Your task to perform on an android device: change your default location settings in chrome Image 0: 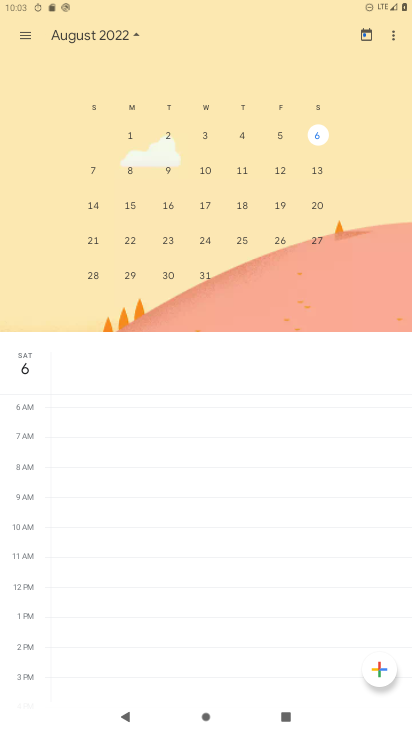
Step 0: press home button
Your task to perform on an android device: change your default location settings in chrome Image 1: 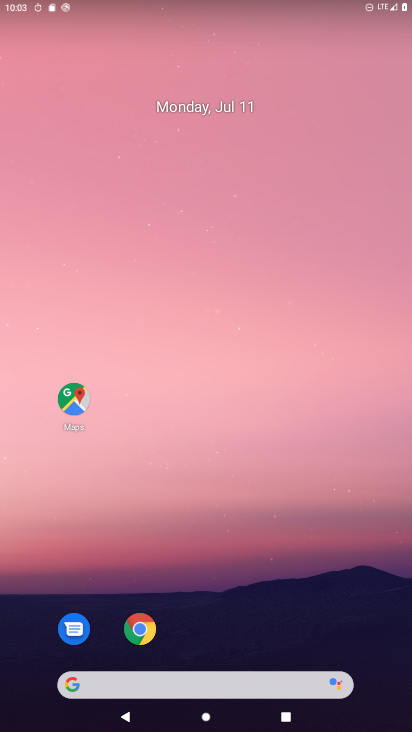
Step 1: click (145, 633)
Your task to perform on an android device: change your default location settings in chrome Image 2: 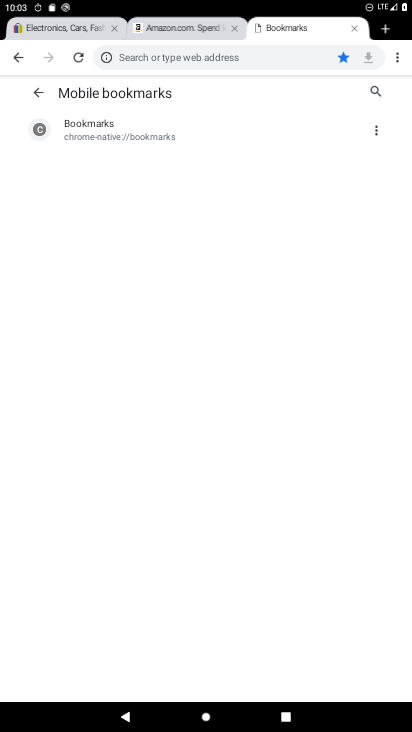
Step 2: click (391, 62)
Your task to perform on an android device: change your default location settings in chrome Image 3: 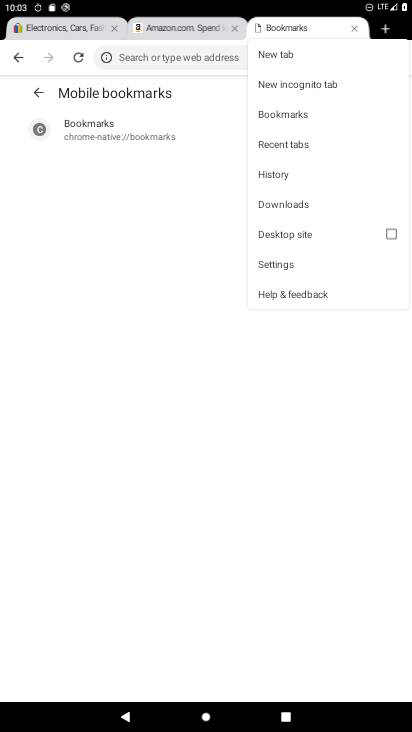
Step 3: click (315, 267)
Your task to perform on an android device: change your default location settings in chrome Image 4: 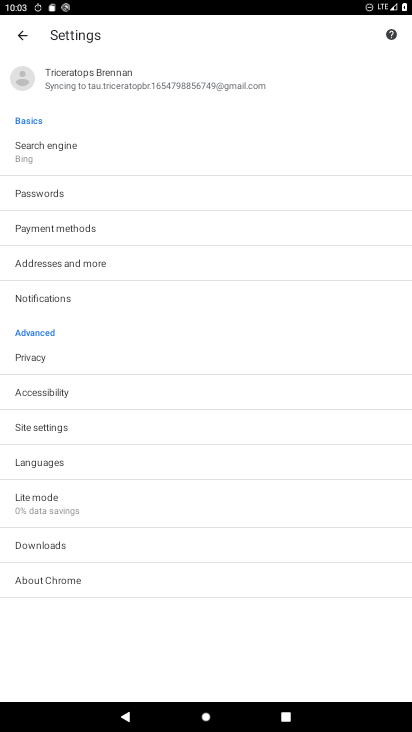
Step 4: click (73, 434)
Your task to perform on an android device: change your default location settings in chrome Image 5: 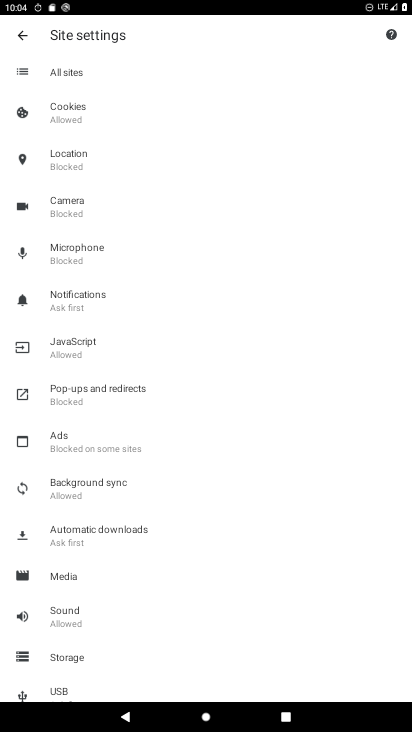
Step 5: click (106, 149)
Your task to perform on an android device: change your default location settings in chrome Image 6: 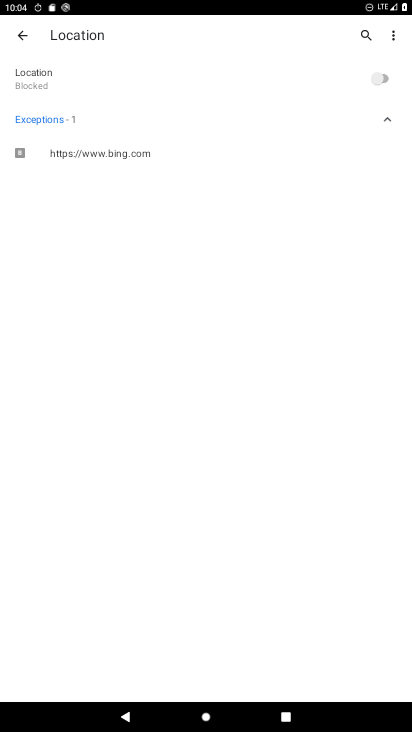
Step 6: click (384, 79)
Your task to perform on an android device: change your default location settings in chrome Image 7: 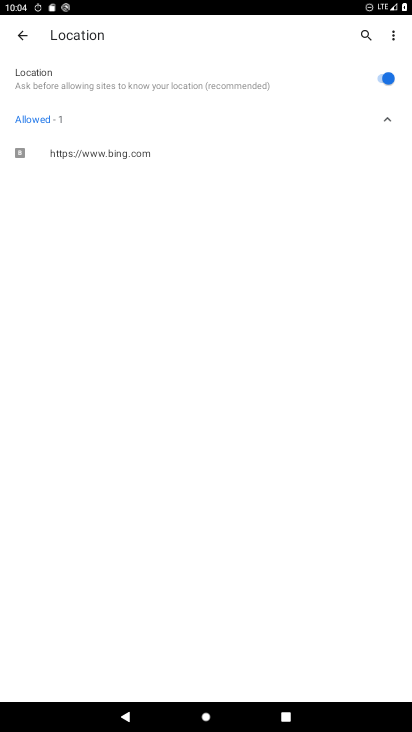
Step 7: task complete